Your task to perform on an android device: add a contact in the contacts app Image 0: 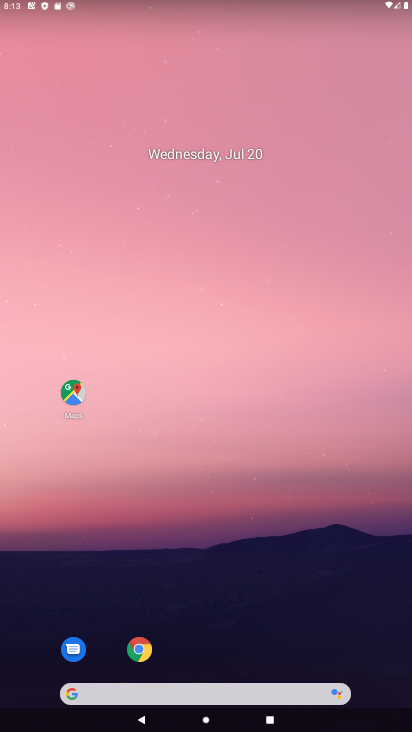
Step 0: drag from (218, 667) to (51, 36)
Your task to perform on an android device: add a contact in the contacts app Image 1: 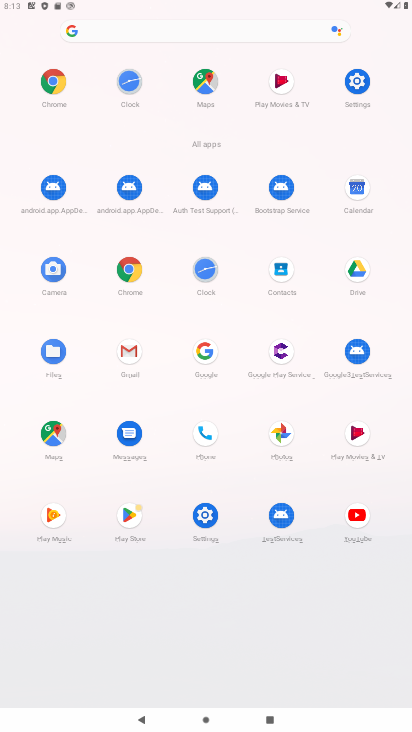
Step 1: click (207, 439)
Your task to perform on an android device: add a contact in the contacts app Image 2: 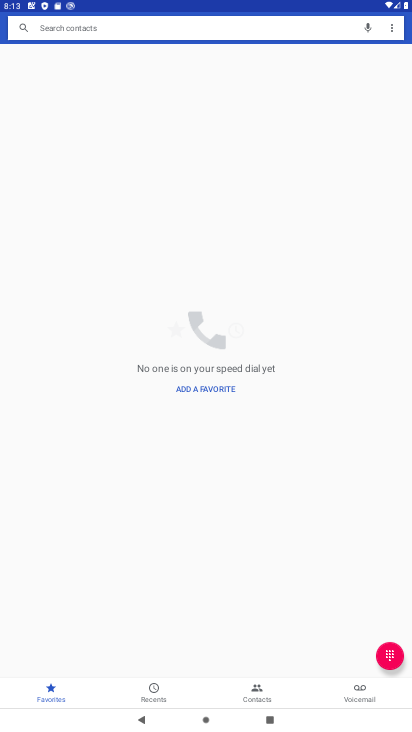
Step 2: click (256, 691)
Your task to perform on an android device: add a contact in the contacts app Image 3: 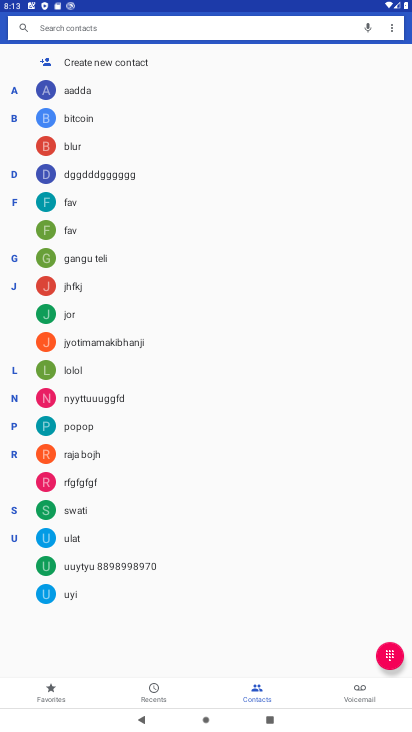
Step 3: click (64, 61)
Your task to perform on an android device: add a contact in the contacts app Image 4: 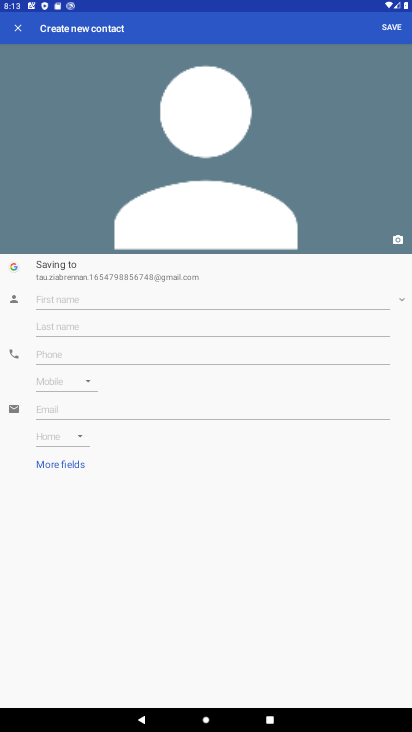
Step 4: click (106, 311)
Your task to perform on an android device: add a contact in the contacts app Image 5: 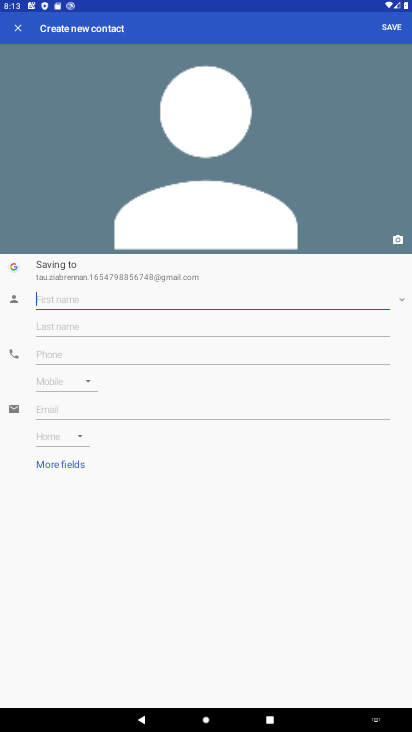
Step 5: type "bvd"
Your task to perform on an android device: add a contact in the contacts app Image 6: 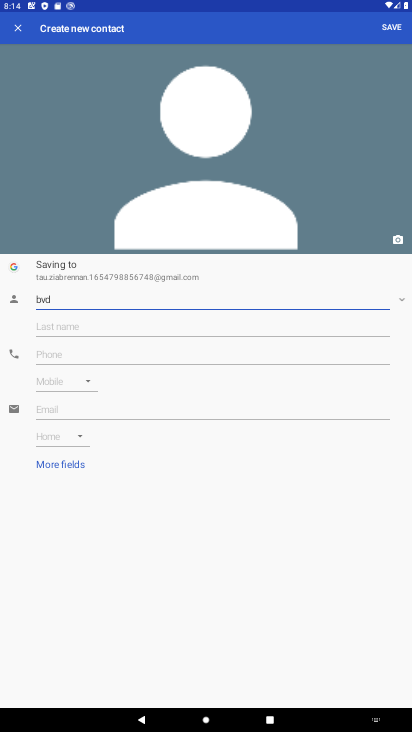
Step 6: click (98, 355)
Your task to perform on an android device: add a contact in the contacts app Image 7: 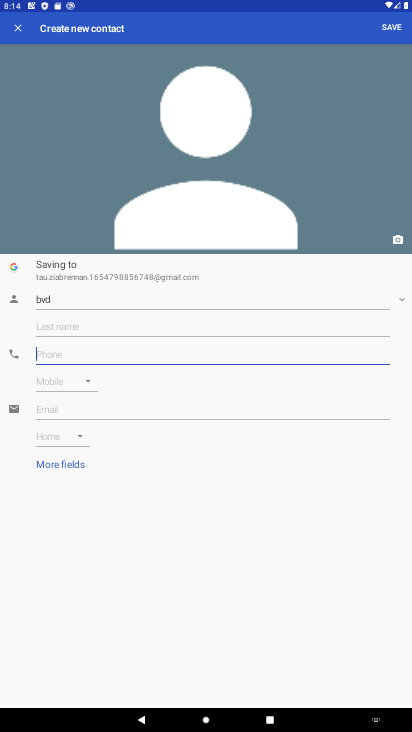
Step 7: type "654"
Your task to perform on an android device: add a contact in the contacts app Image 8: 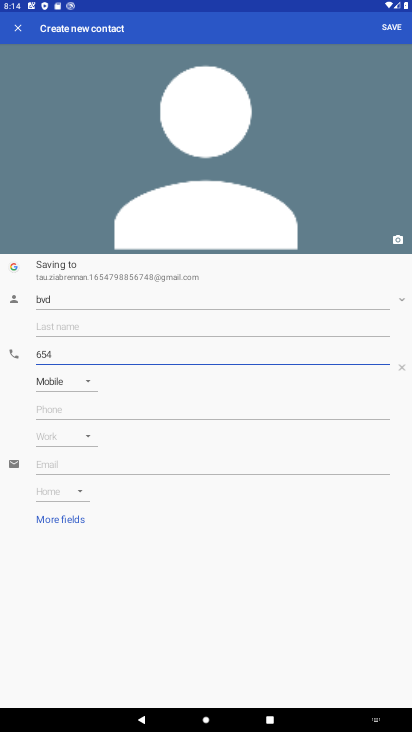
Step 8: click (386, 25)
Your task to perform on an android device: add a contact in the contacts app Image 9: 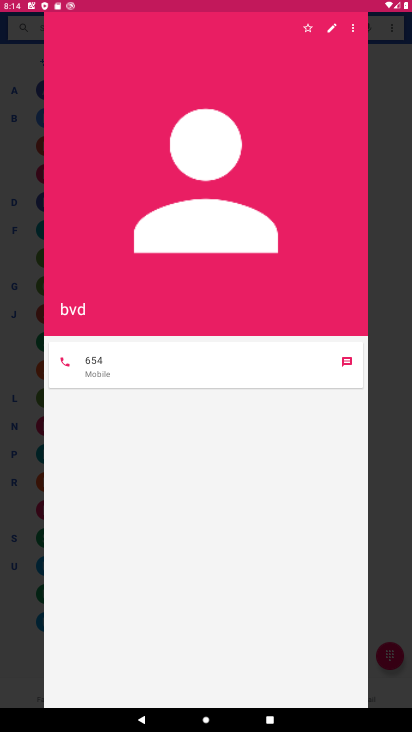
Step 9: task complete